Your task to perform on an android device: turn on location history Image 0: 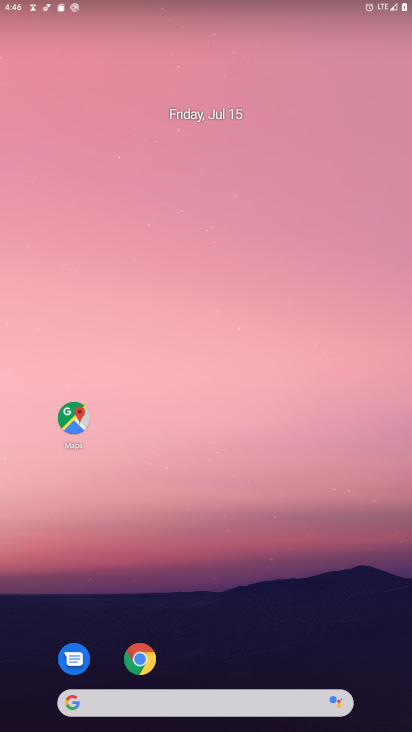
Step 0: drag from (280, 710) to (344, 3)
Your task to perform on an android device: turn on location history Image 1: 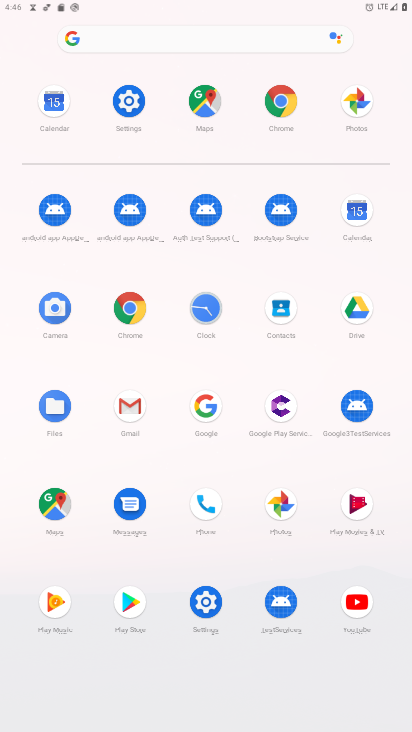
Step 1: click (134, 105)
Your task to perform on an android device: turn on location history Image 2: 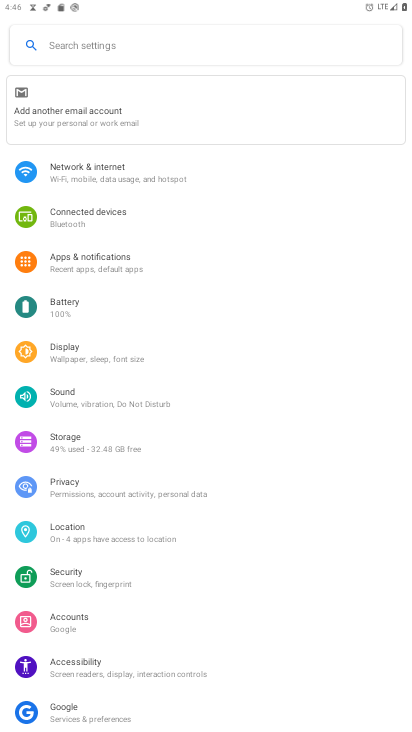
Step 2: click (73, 523)
Your task to perform on an android device: turn on location history Image 3: 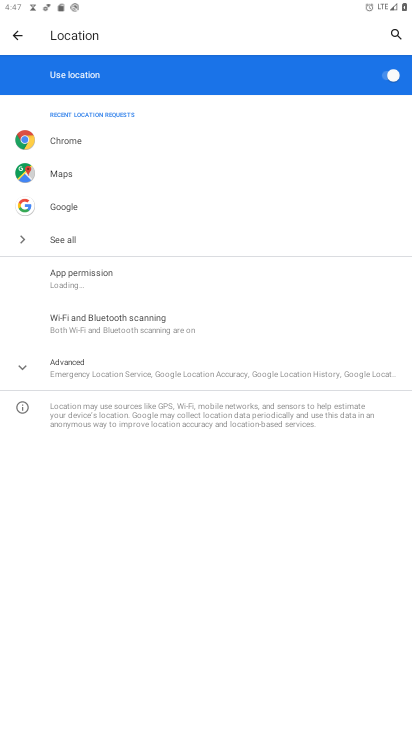
Step 3: click (159, 377)
Your task to perform on an android device: turn on location history Image 4: 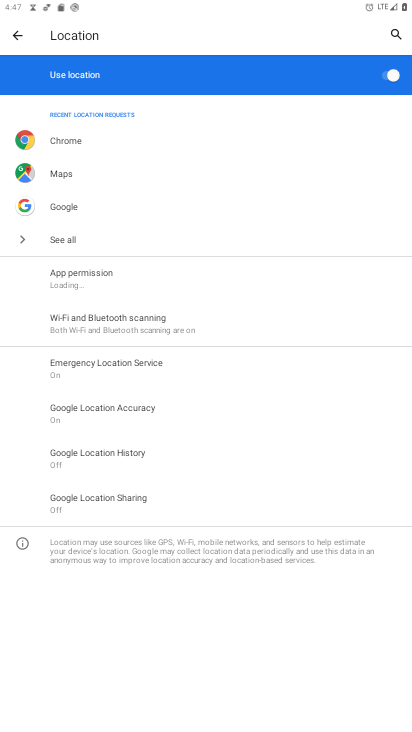
Step 4: click (122, 467)
Your task to perform on an android device: turn on location history Image 5: 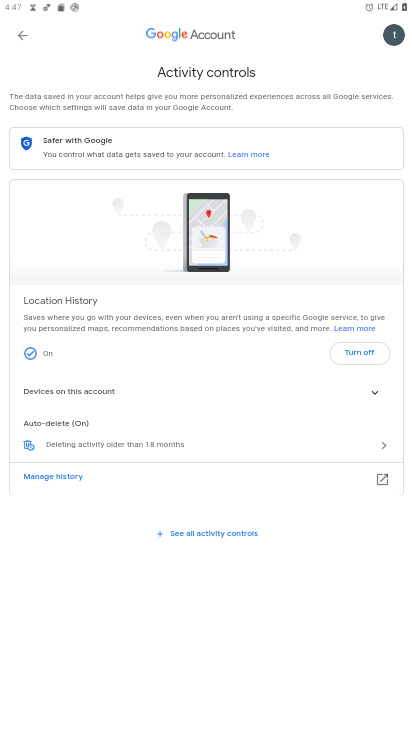
Step 5: task complete